Your task to perform on an android device: Open my contact list Image 0: 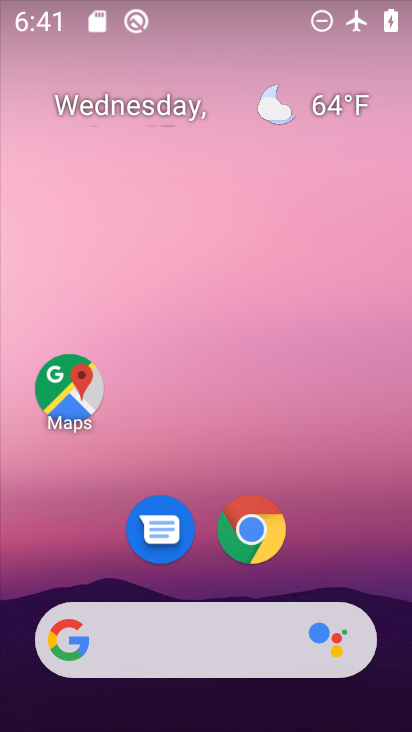
Step 0: drag from (202, 556) to (224, 68)
Your task to perform on an android device: Open my contact list Image 1: 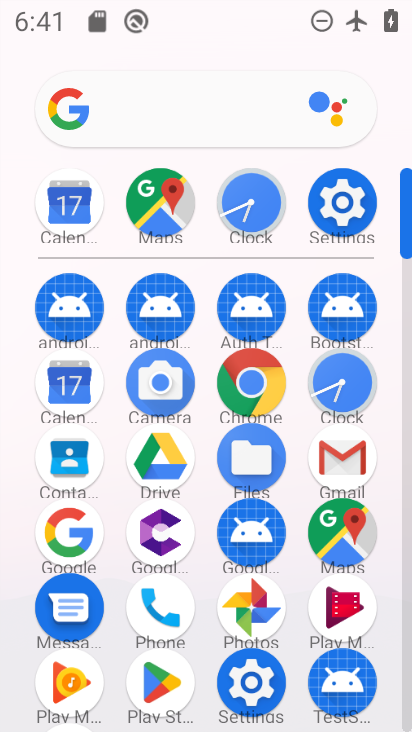
Step 1: click (64, 455)
Your task to perform on an android device: Open my contact list Image 2: 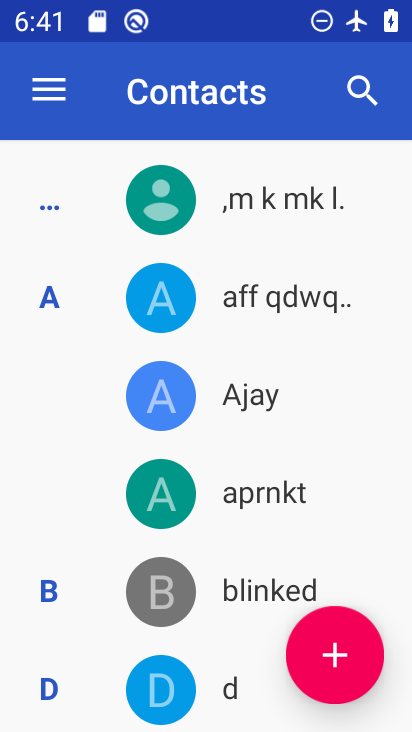
Step 2: task complete